Your task to perform on an android device: Open Maps and search for coffee Image 0: 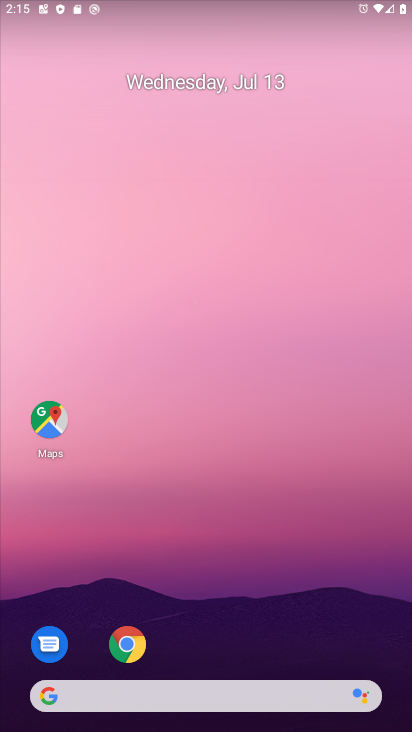
Step 0: click (47, 429)
Your task to perform on an android device: Open Maps and search for coffee Image 1: 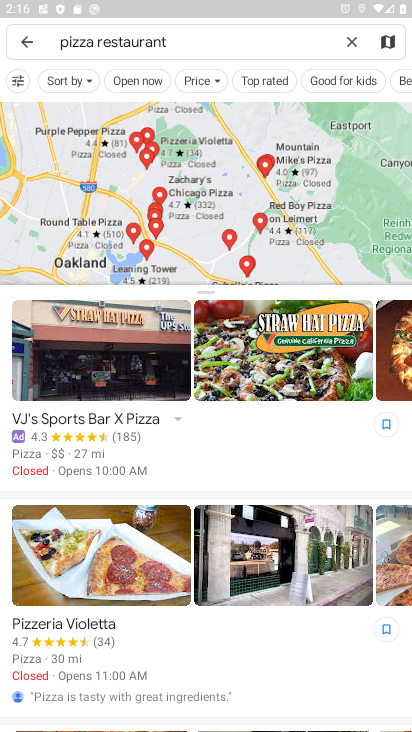
Step 1: click (343, 42)
Your task to perform on an android device: Open Maps and search for coffee Image 2: 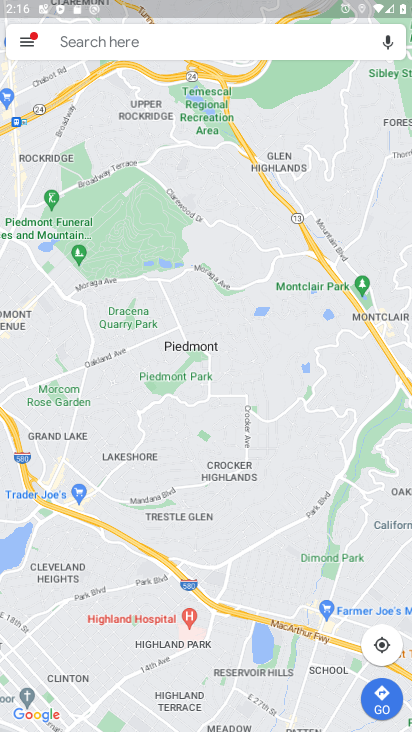
Step 2: click (109, 42)
Your task to perform on an android device: Open Maps and search for coffee Image 3: 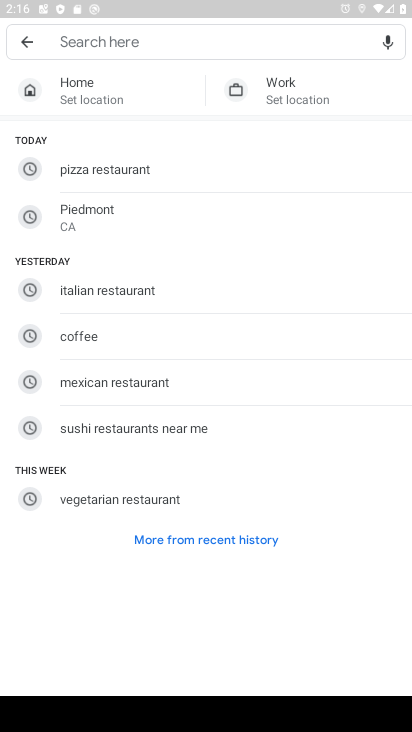
Step 3: click (98, 332)
Your task to perform on an android device: Open Maps and search for coffee Image 4: 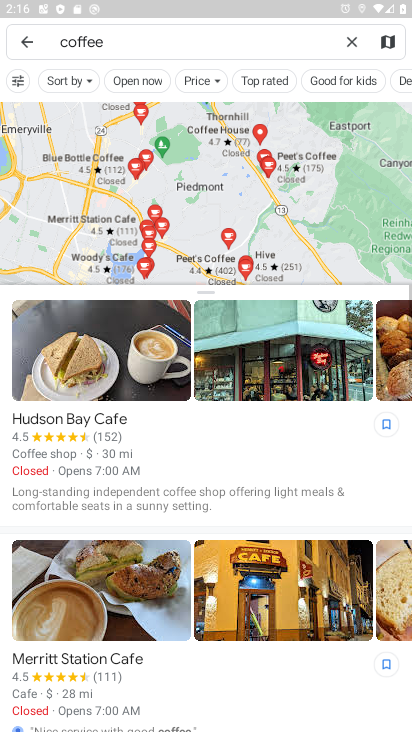
Step 4: task complete